Your task to perform on an android device: Clear the cart on newegg.com. Image 0: 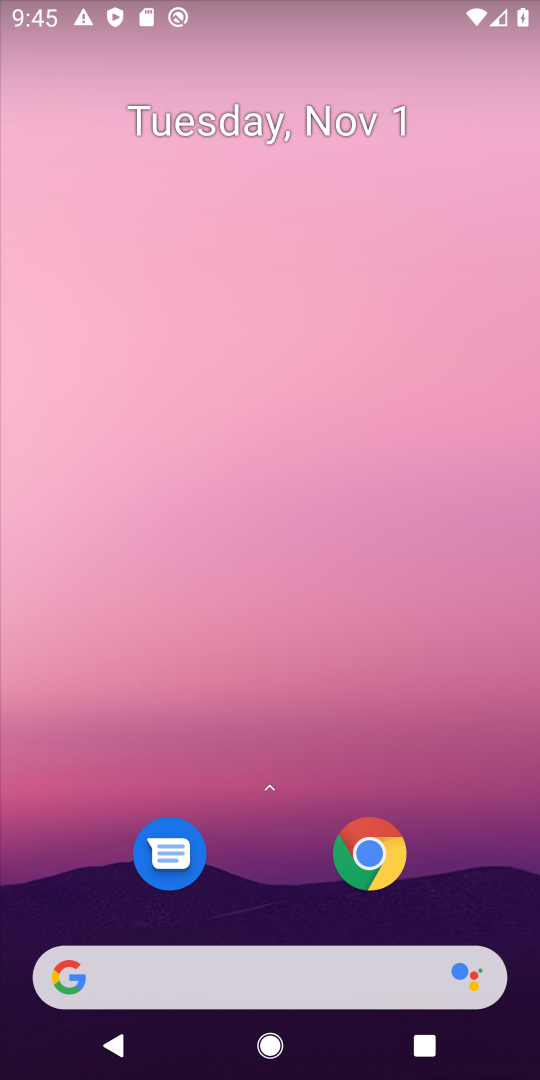
Step 0: click (267, 989)
Your task to perform on an android device: Clear the cart on newegg.com. Image 1: 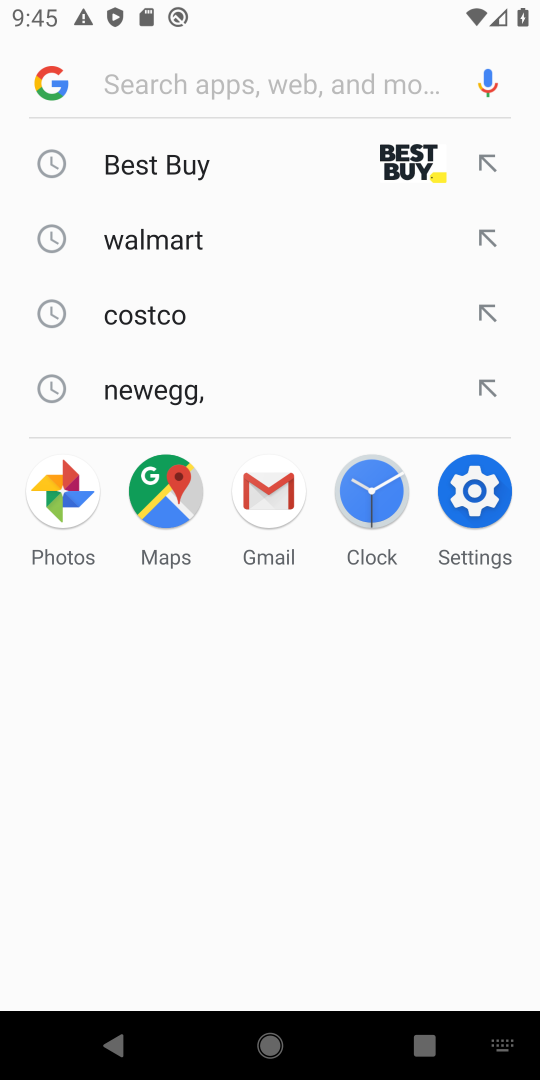
Step 1: click (180, 379)
Your task to perform on an android device: Clear the cart on newegg.com. Image 2: 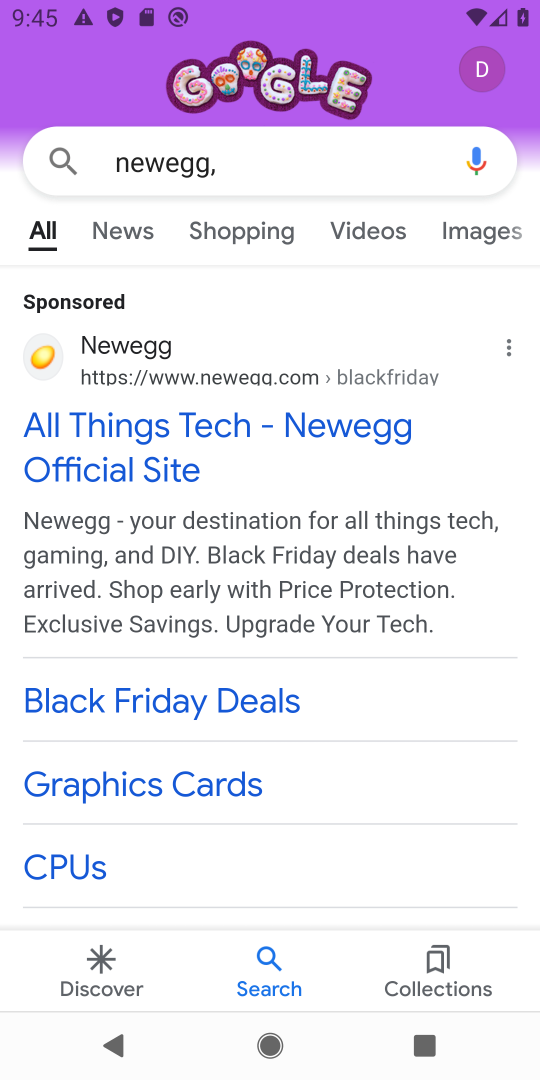
Step 2: click (195, 465)
Your task to perform on an android device: Clear the cart on newegg.com. Image 3: 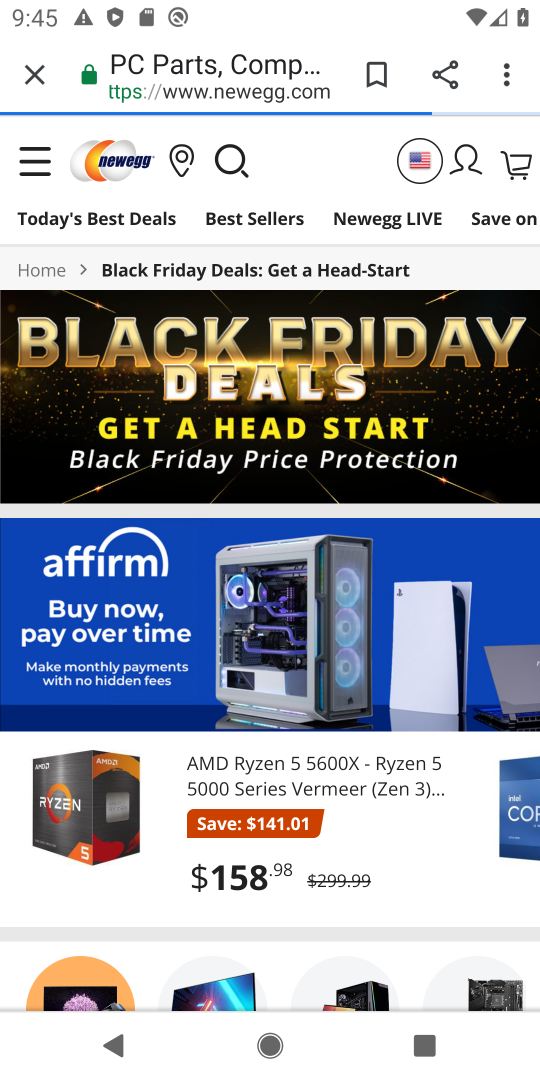
Step 3: click (513, 176)
Your task to perform on an android device: Clear the cart on newegg.com. Image 4: 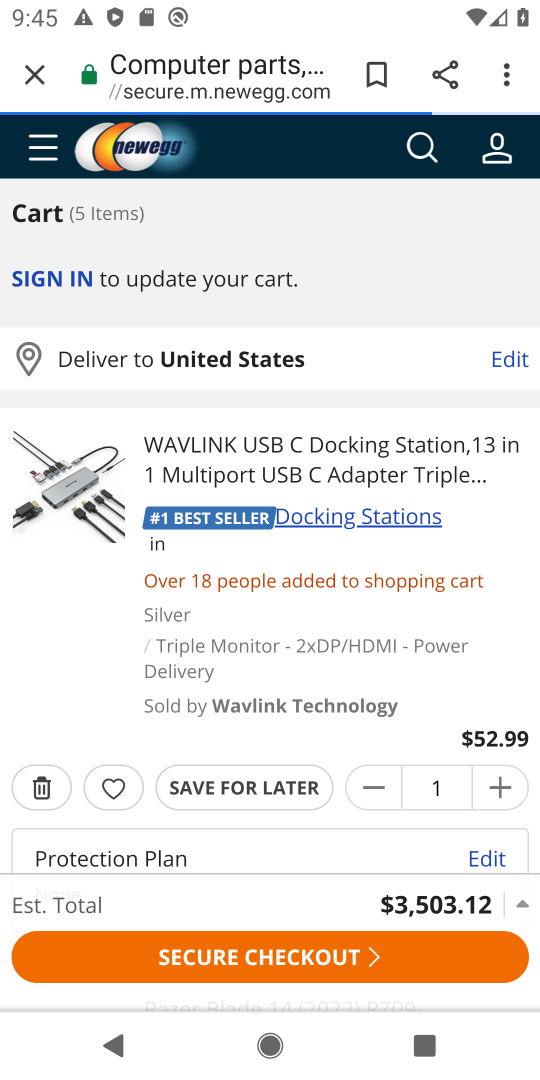
Step 4: click (385, 786)
Your task to perform on an android device: Clear the cart on newegg.com. Image 5: 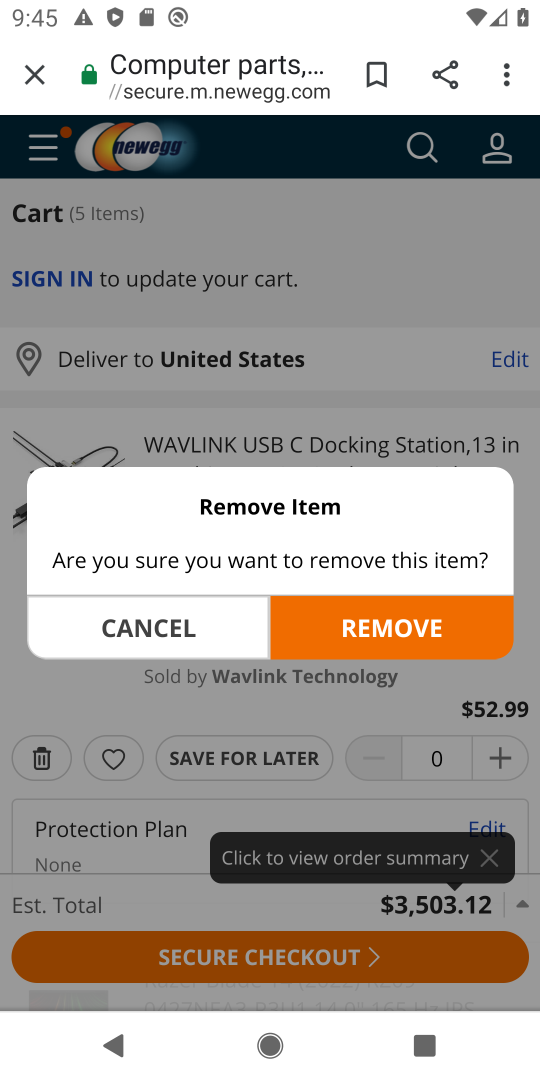
Step 5: click (386, 644)
Your task to perform on an android device: Clear the cart on newegg.com. Image 6: 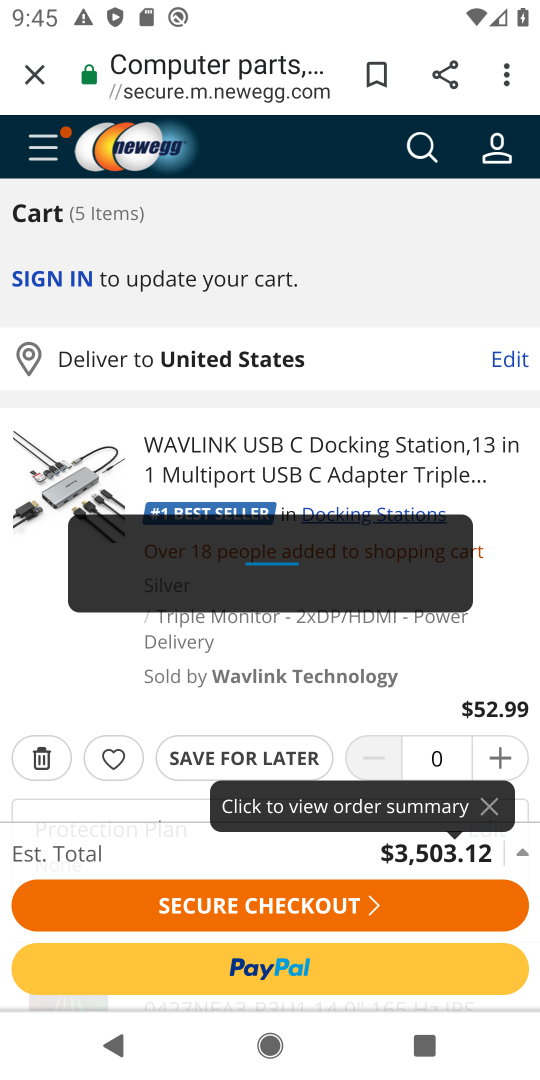
Step 6: task complete